Your task to perform on an android device: turn notification dots off Image 0: 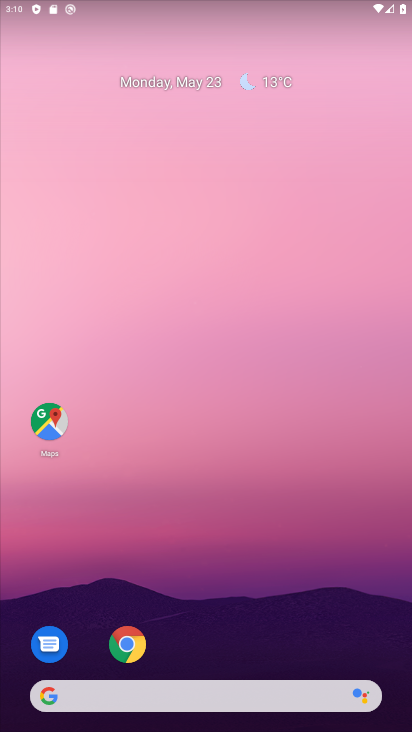
Step 0: drag from (274, 634) to (217, 161)
Your task to perform on an android device: turn notification dots off Image 1: 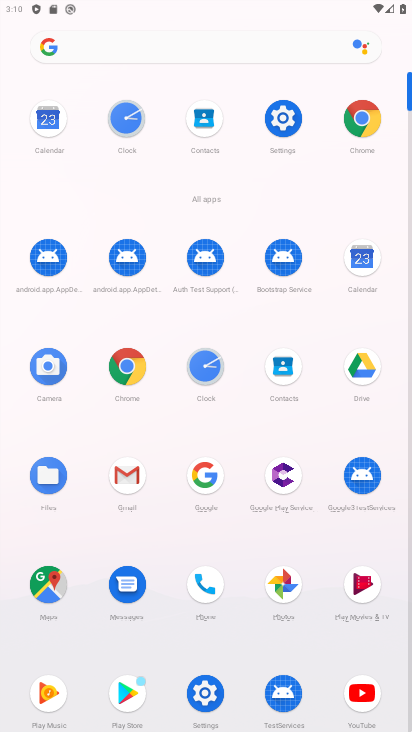
Step 1: click (282, 106)
Your task to perform on an android device: turn notification dots off Image 2: 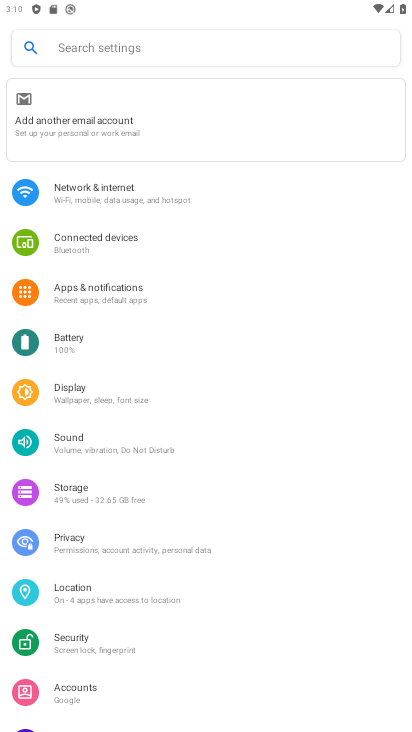
Step 2: click (126, 284)
Your task to perform on an android device: turn notification dots off Image 3: 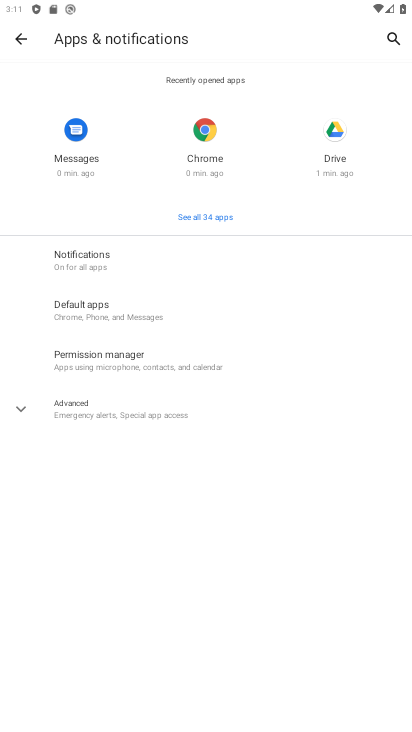
Step 3: click (125, 267)
Your task to perform on an android device: turn notification dots off Image 4: 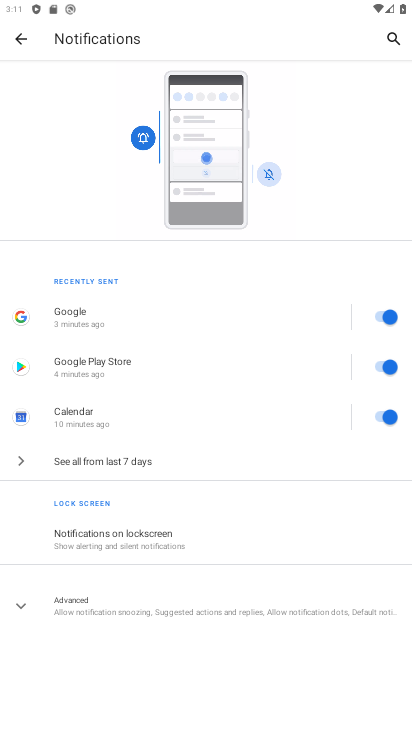
Step 4: click (204, 610)
Your task to perform on an android device: turn notification dots off Image 5: 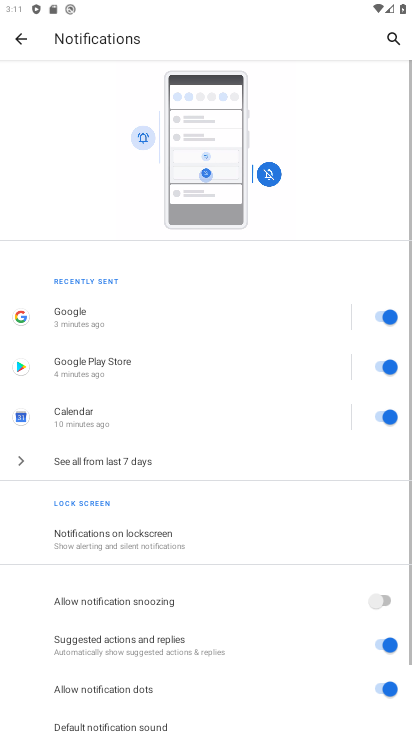
Step 5: drag from (206, 622) to (231, 43)
Your task to perform on an android device: turn notification dots off Image 6: 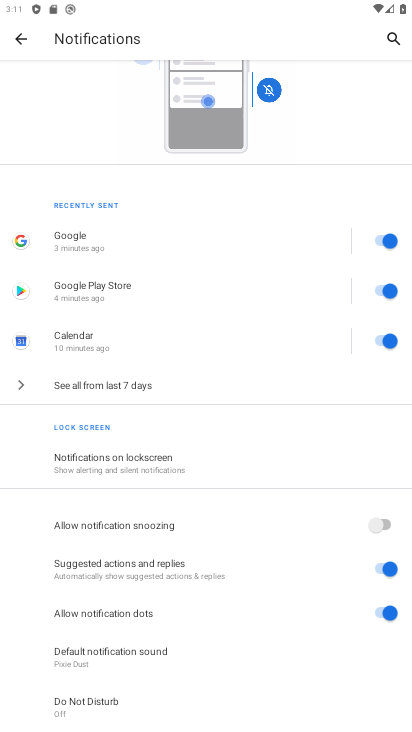
Step 6: click (391, 612)
Your task to perform on an android device: turn notification dots off Image 7: 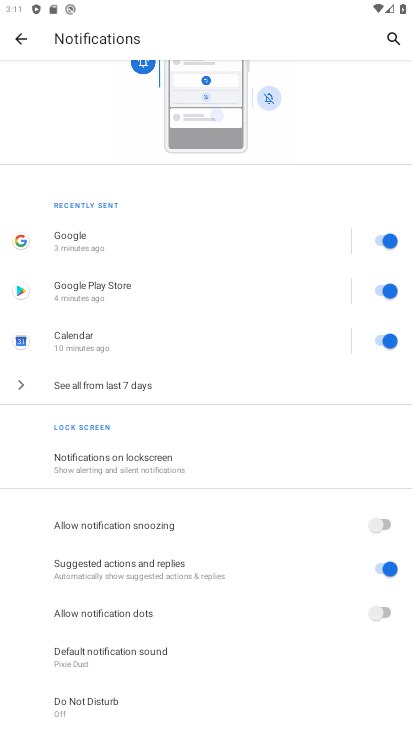
Step 7: task complete